Your task to perform on an android device: change notifications settings Image 0: 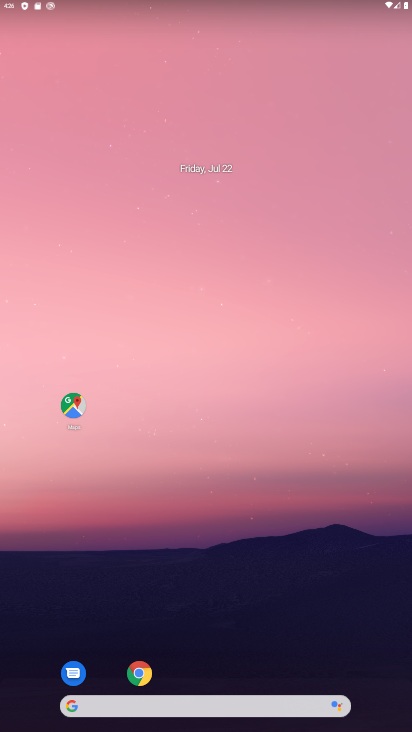
Step 0: press home button
Your task to perform on an android device: change notifications settings Image 1: 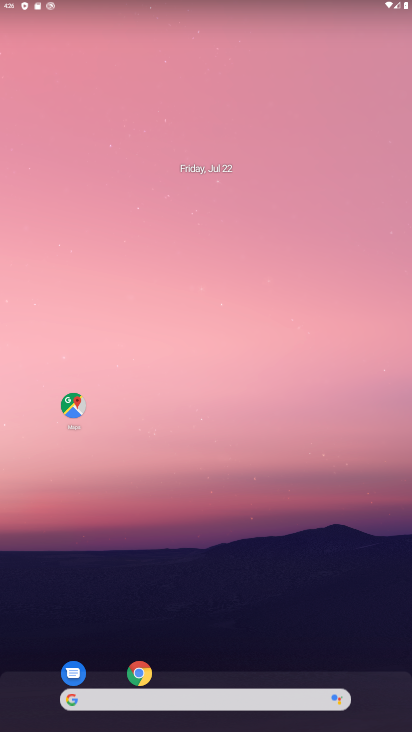
Step 1: drag from (246, 656) to (283, 66)
Your task to perform on an android device: change notifications settings Image 2: 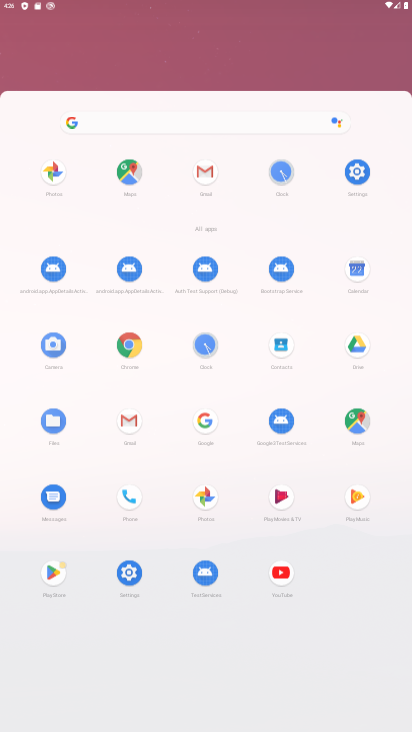
Step 2: drag from (286, 563) to (273, 0)
Your task to perform on an android device: change notifications settings Image 3: 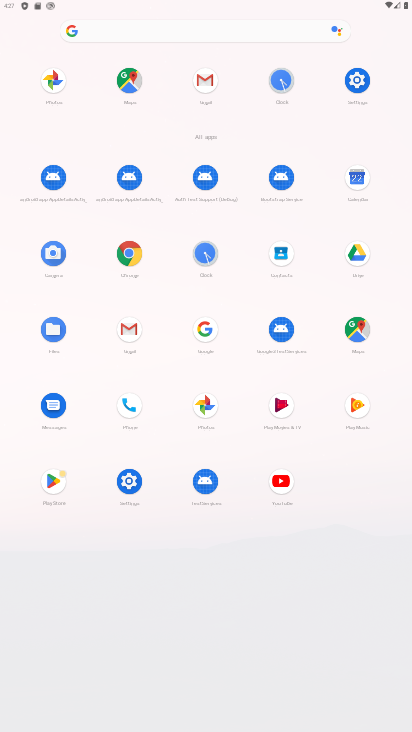
Step 3: click (352, 85)
Your task to perform on an android device: change notifications settings Image 4: 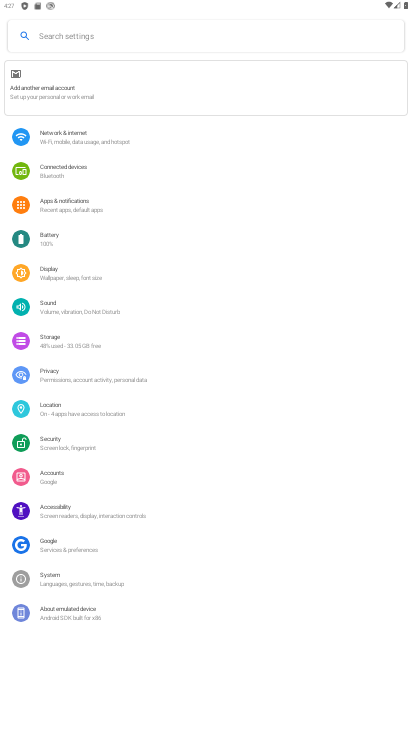
Step 4: click (74, 208)
Your task to perform on an android device: change notifications settings Image 5: 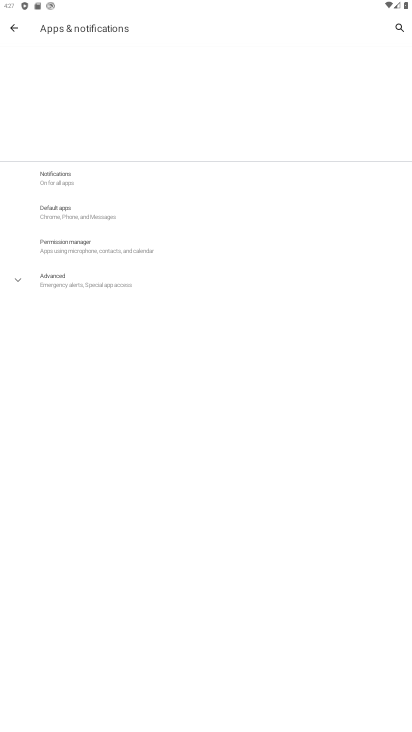
Step 5: click (73, 181)
Your task to perform on an android device: change notifications settings Image 6: 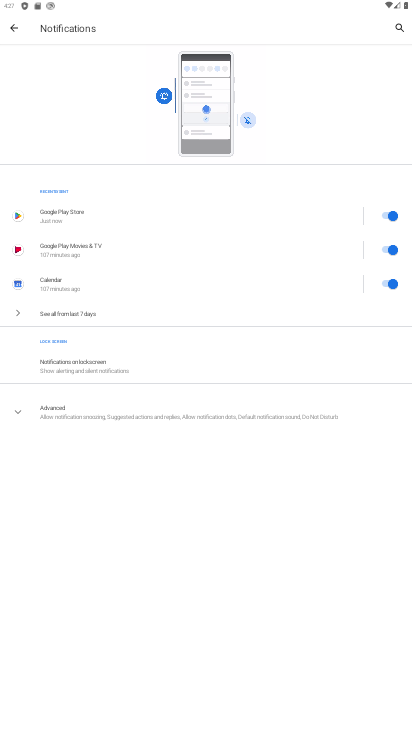
Step 6: click (250, 119)
Your task to perform on an android device: change notifications settings Image 7: 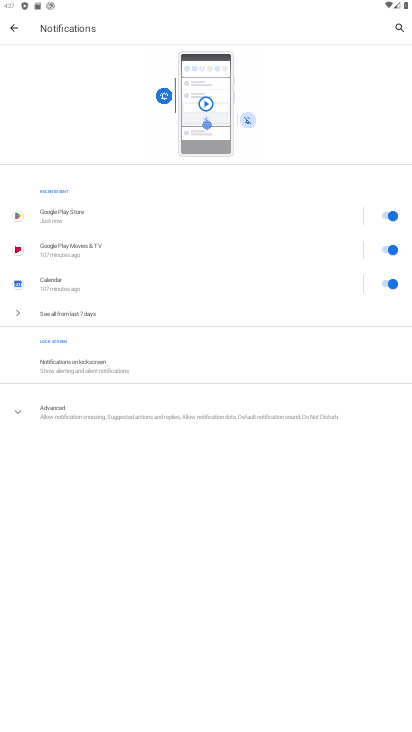
Step 7: click (247, 118)
Your task to perform on an android device: change notifications settings Image 8: 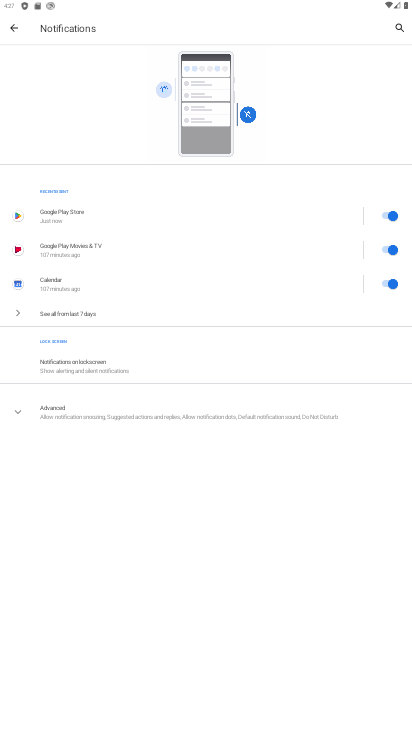
Step 8: task complete